Your task to perform on an android device: toggle show notifications on the lock screen Image 0: 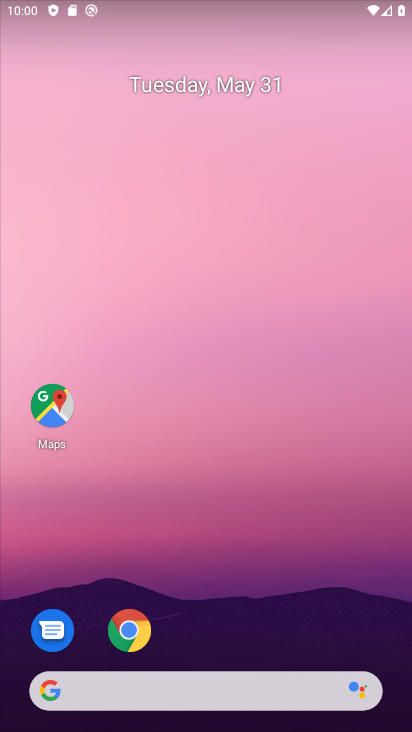
Step 0: drag from (269, 631) to (212, 79)
Your task to perform on an android device: toggle show notifications on the lock screen Image 1: 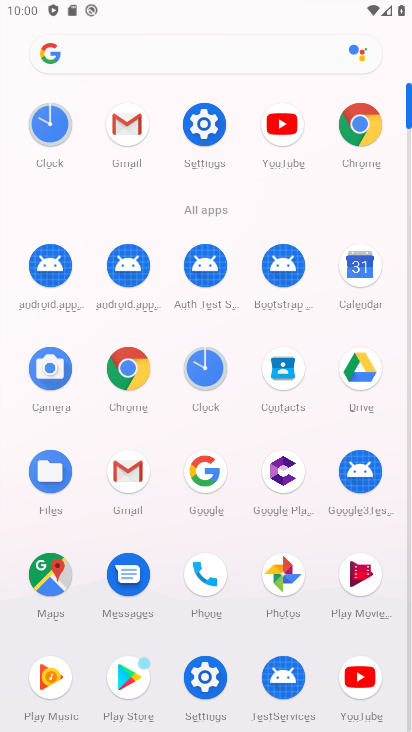
Step 1: click (198, 121)
Your task to perform on an android device: toggle show notifications on the lock screen Image 2: 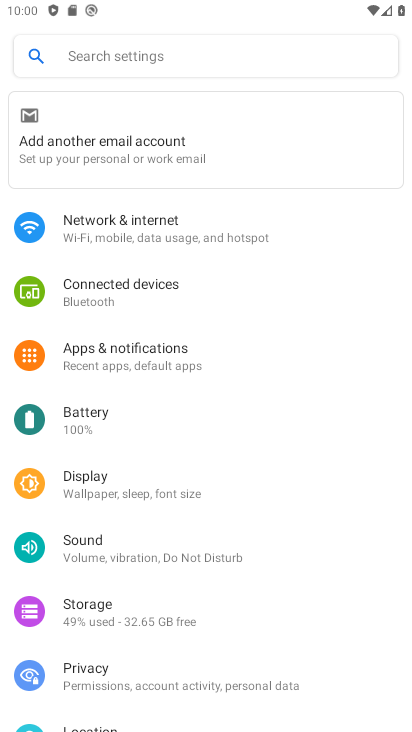
Step 2: click (170, 365)
Your task to perform on an android device: toggle show notifications on the lock screen Image 3: 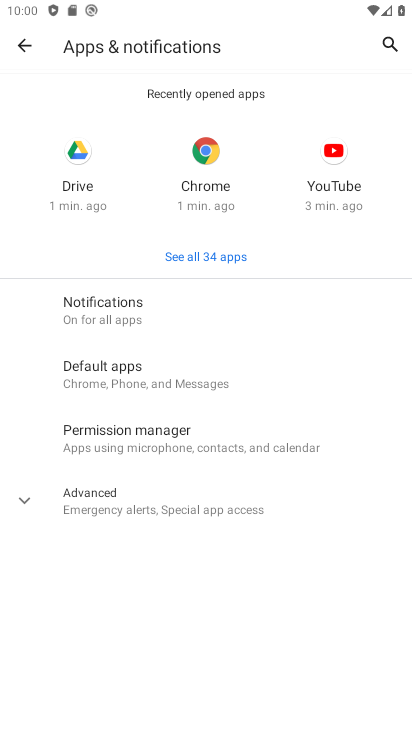
Step 3: click (95, 314)
Your task to perform on an android device: toggle show notifications on the lock screen Image 4: 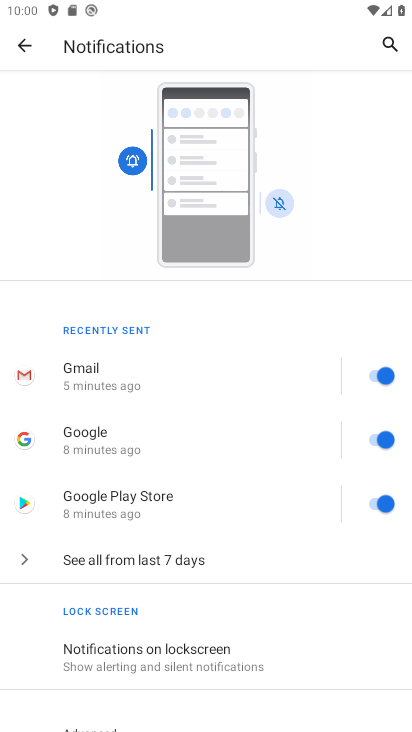
Step 4: drag from (275, 598) to (249, 279)
Your task to perform on an android device: toggle show notifications on the lock screen Image 5: 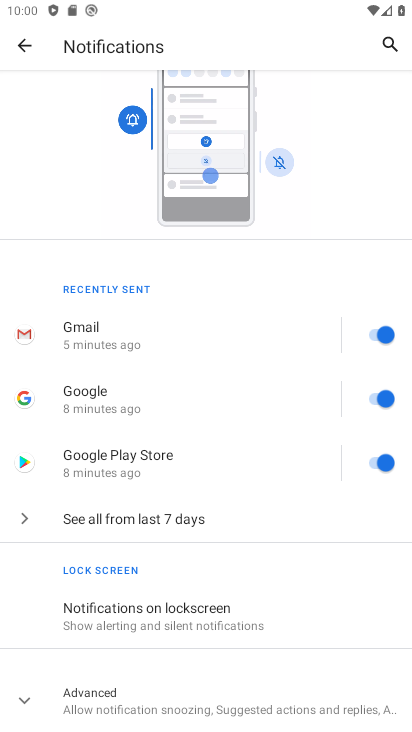
Step 5: click (22, 699)
Your task to perform on an android device: toggle show notifications on the lock screen Image 6: 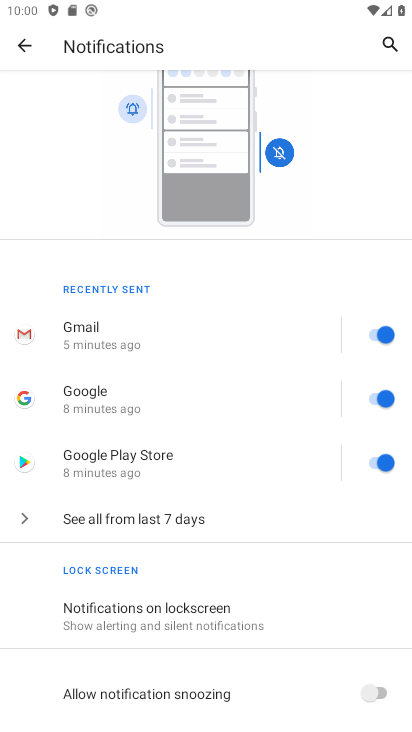
Step 6: drag from (354, 558) to (337, 289)
Your task to perform on an android device: toggle show notifications on the lock screen Image 7: 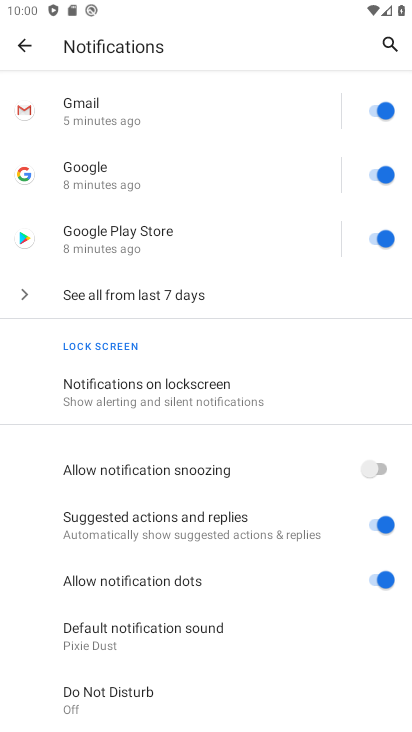
Step 7: click (224, 399)
Your task to perform on an android device: toggle show notifications on the lock screen Image 8: 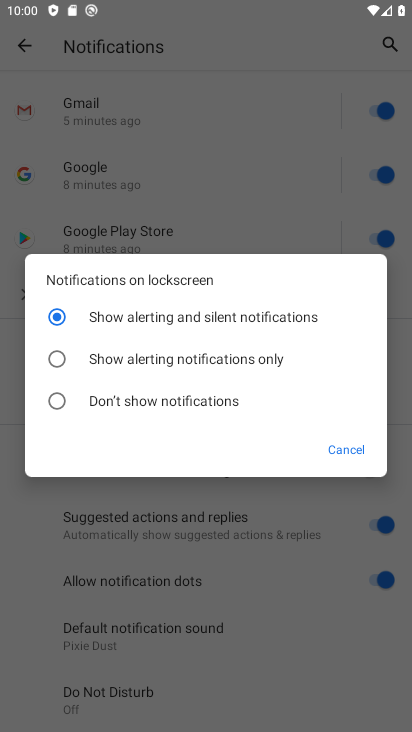
Step 8: click (70, 367)
Your task to perform on an android device: toggle show notifications on the lock screen Image 9: 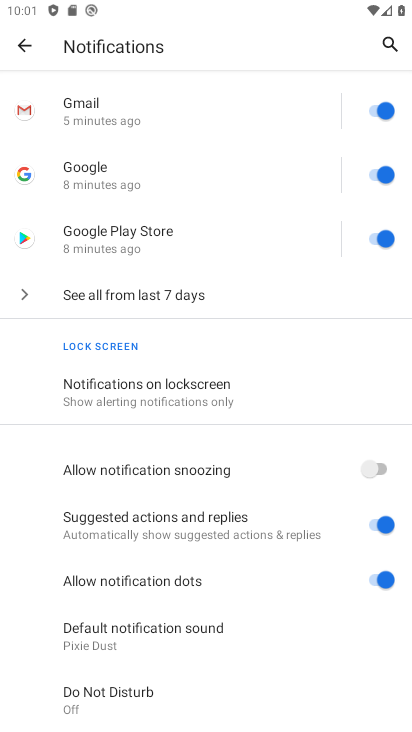
Step 9: task complete